Your task to perform on an android device: Show me recent news Image 0: 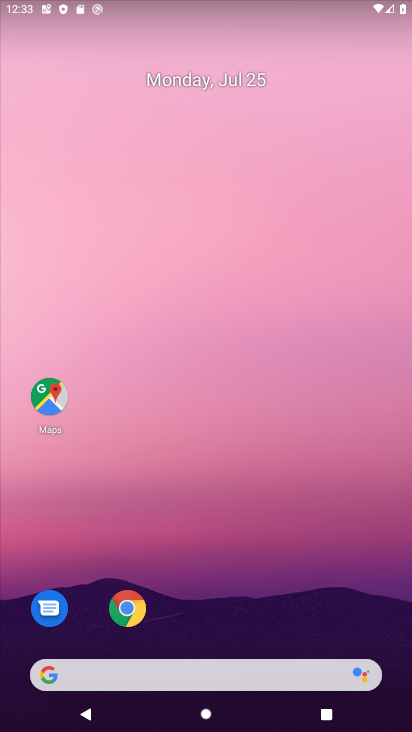
Step 0: drag from (216, 567) to (257, 36)
Your task to perform on an android device: Show me recent news Image 1: 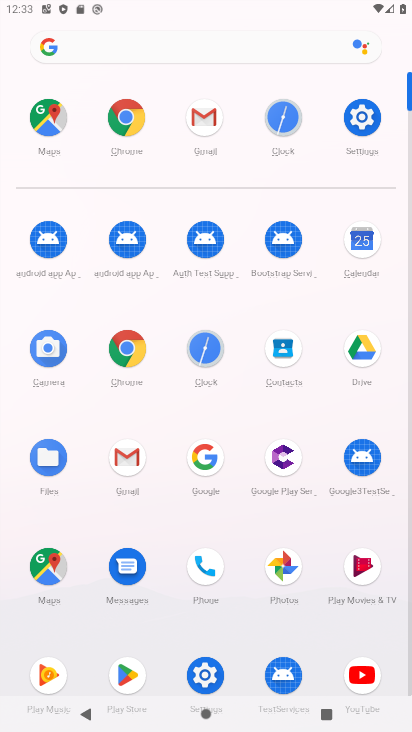
Step 1: click (218, 463)
Your task to perform on an android device: Show me recent news Image 2: 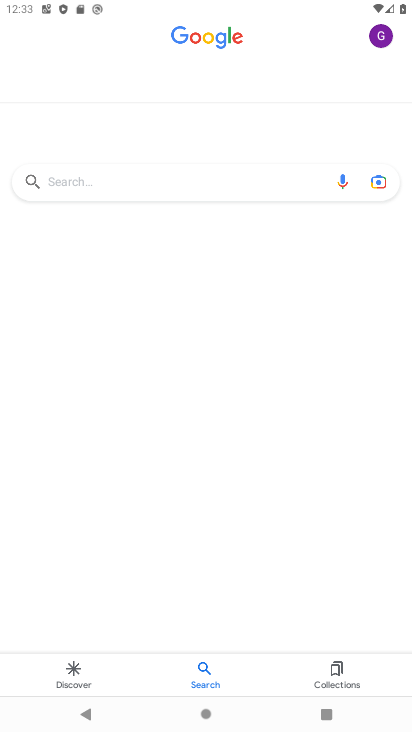
Step 2: drag from (192, 417) to (177, 240)
Your task to perform on an android device: Show me recent news Image 3: 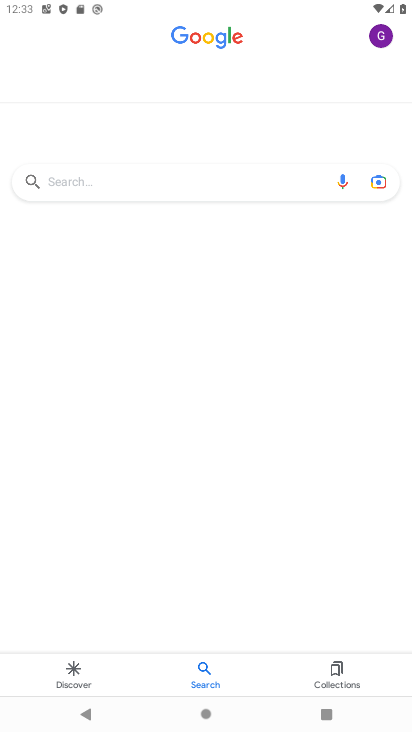
Step 3: click (85, 664)
Your task to perform on an android device: Show me recent news Image 4: 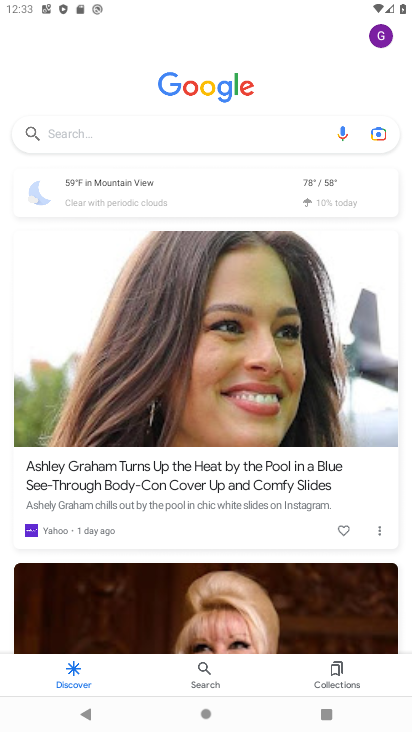
Step 4: task complete